Your task to perform on an android device: Open CNN.com Image 0: 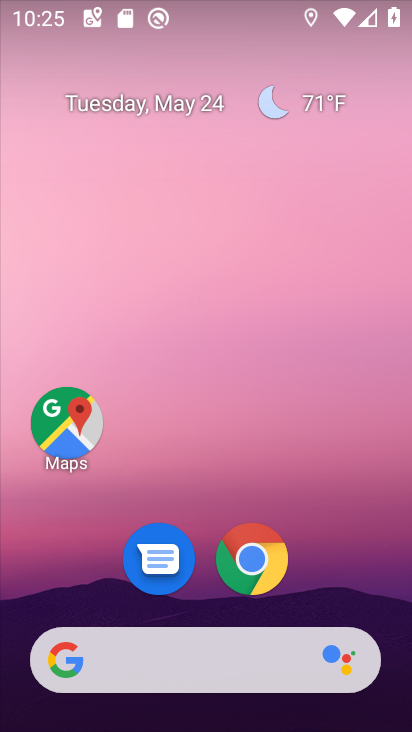
Step 0: drag from (400, 664) to (313, 35)
Your task to perform on an android device: Open CNN.com Image 1: 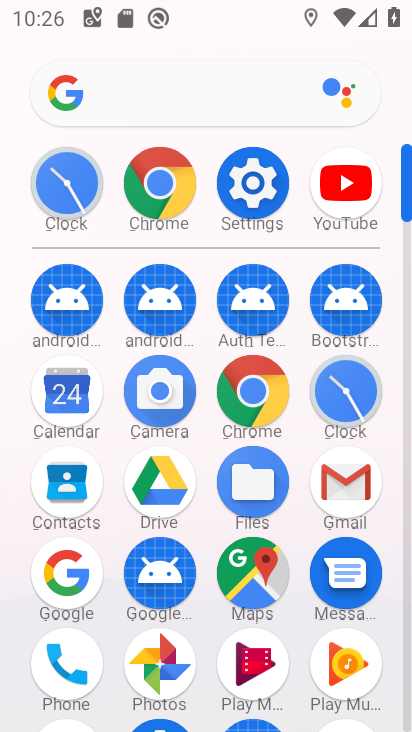
Step 1: click (67, 568)
Your task to perform on an android device: Open CNN.com Image 2: 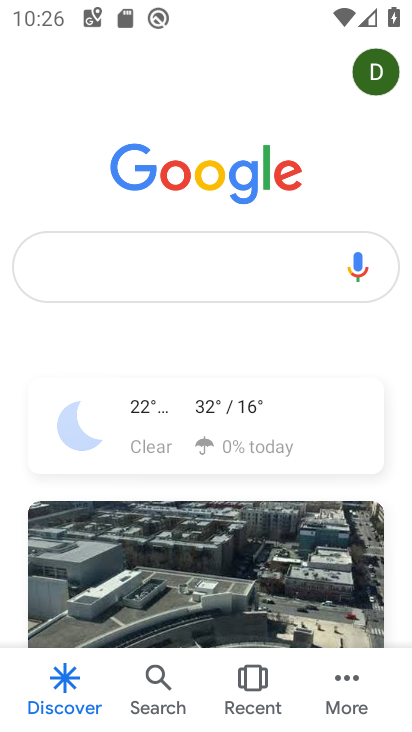
Step 2: click (118, 283)
Your task to perform on an android device: Open CNN.com Image 3: 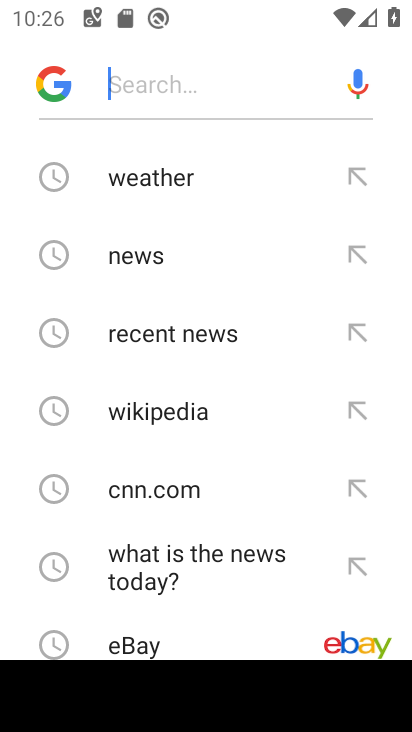
Step 3: click (159, 500)
Your task to perform on an android device: Open CNN.com Image 4: 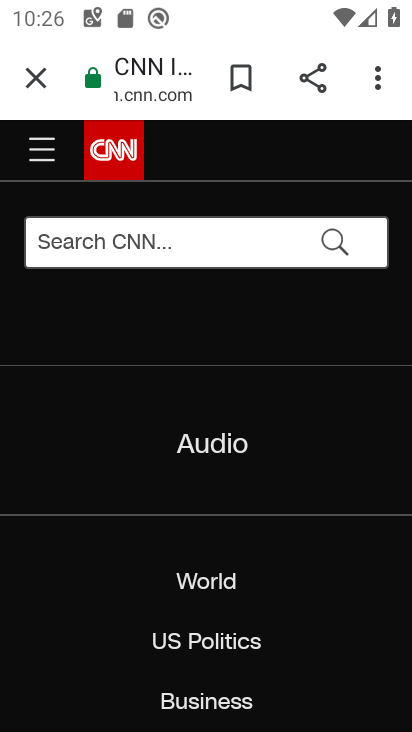
Step 4: task complete